Your task to perform on an android device: find photos in the google photos app Image 0: 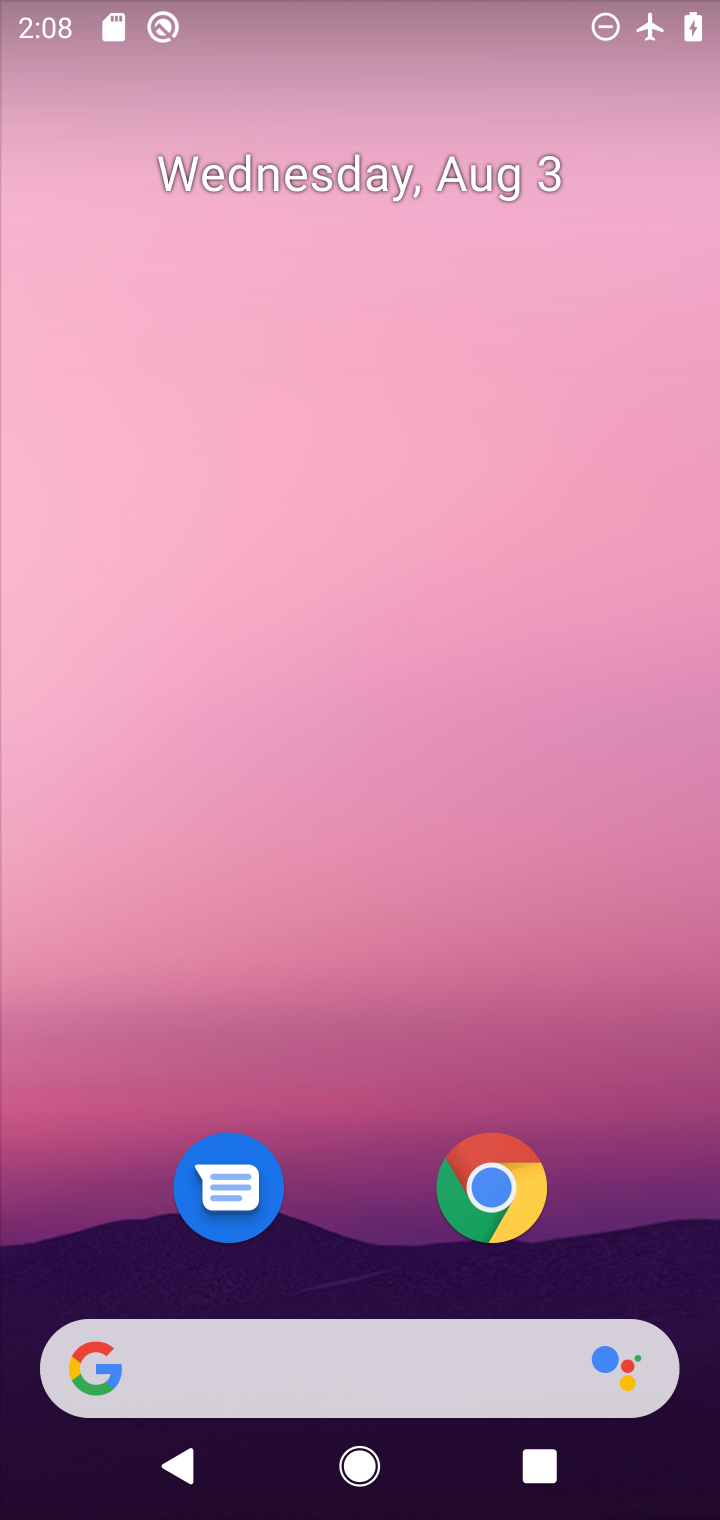
Step 0: drag from (512, 713) to (542, 75)
Your task to perform on an android device: find photos in the google photos app Image 1: 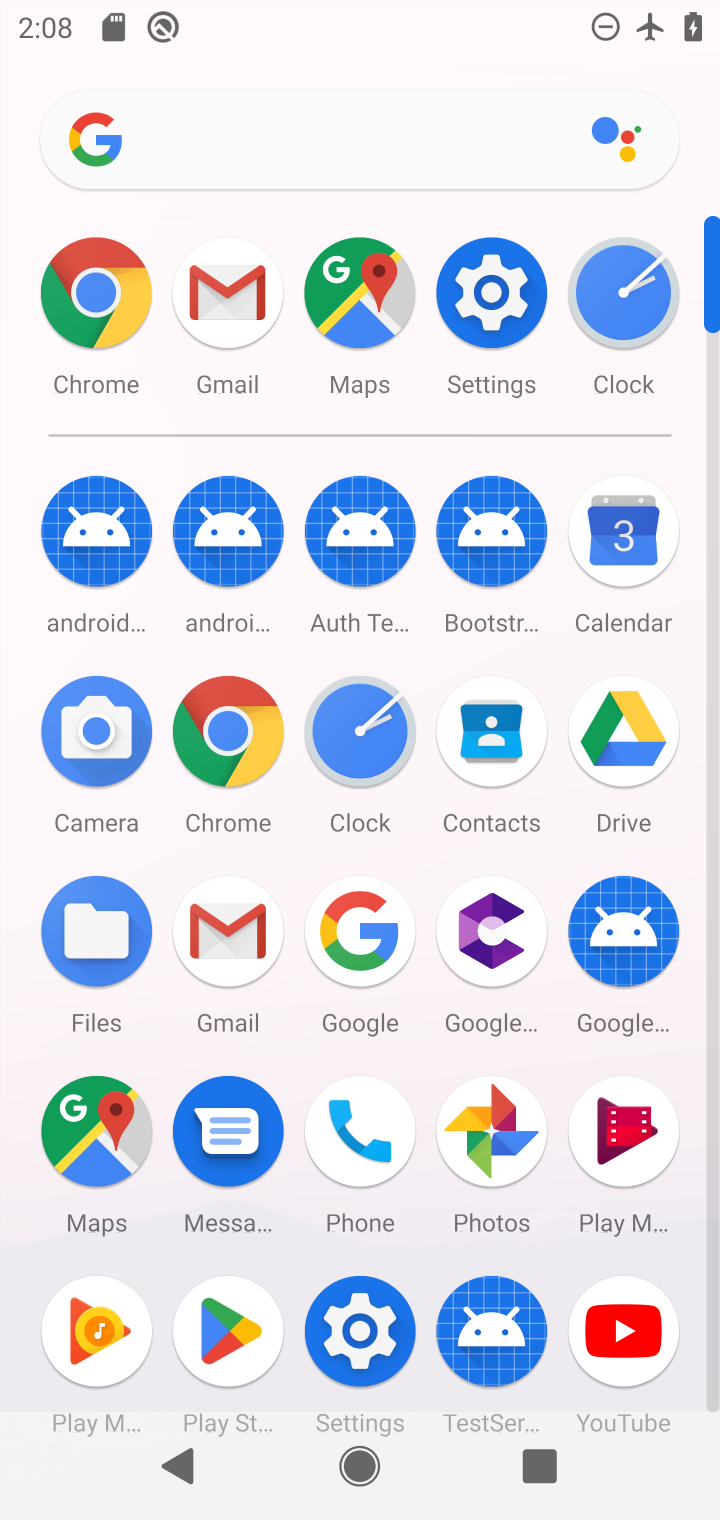
Step 1: click (478, 1143)
Your task to perform on an android device: find photos in the google photos app Image 2: 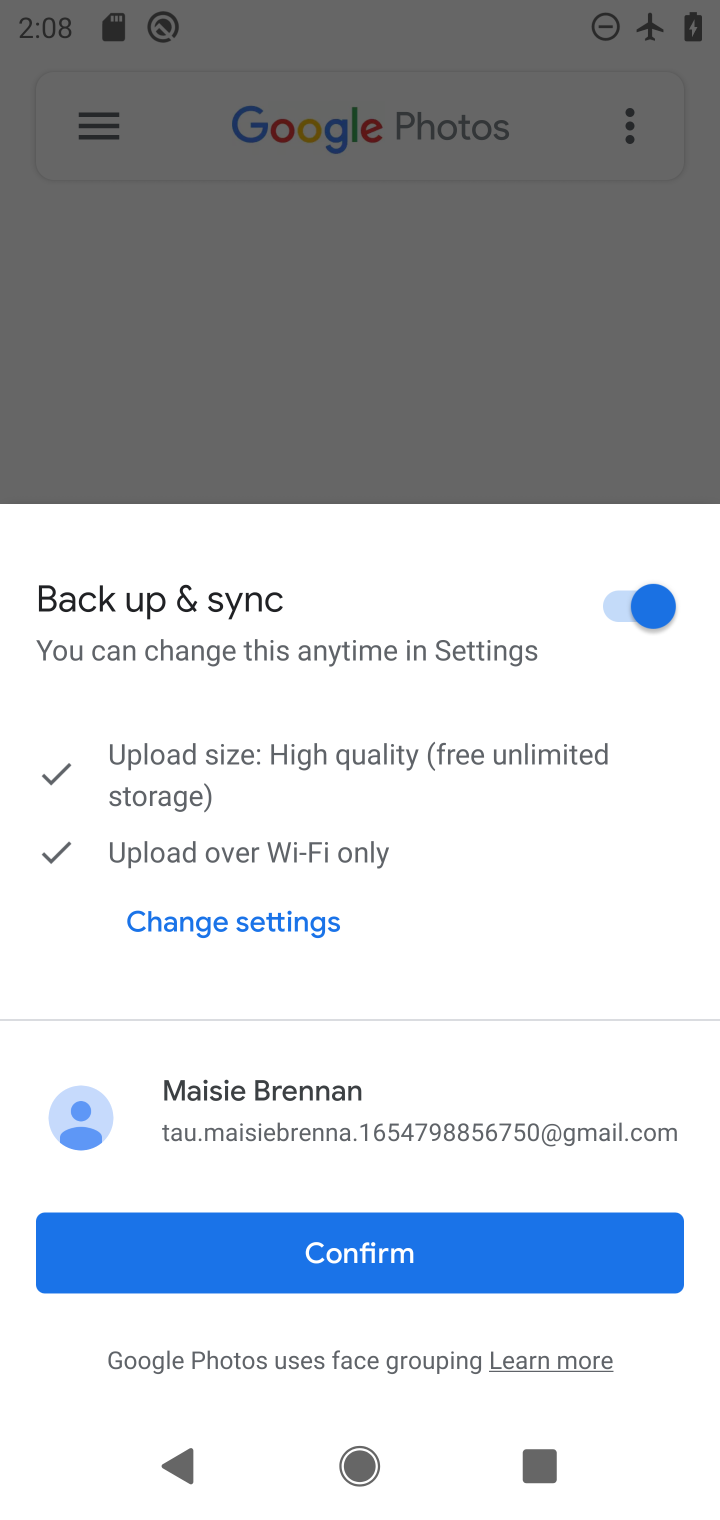
Step 2: click (543, 1250)
Your task to perform on an android device: find photos in the google photos app Image 3: 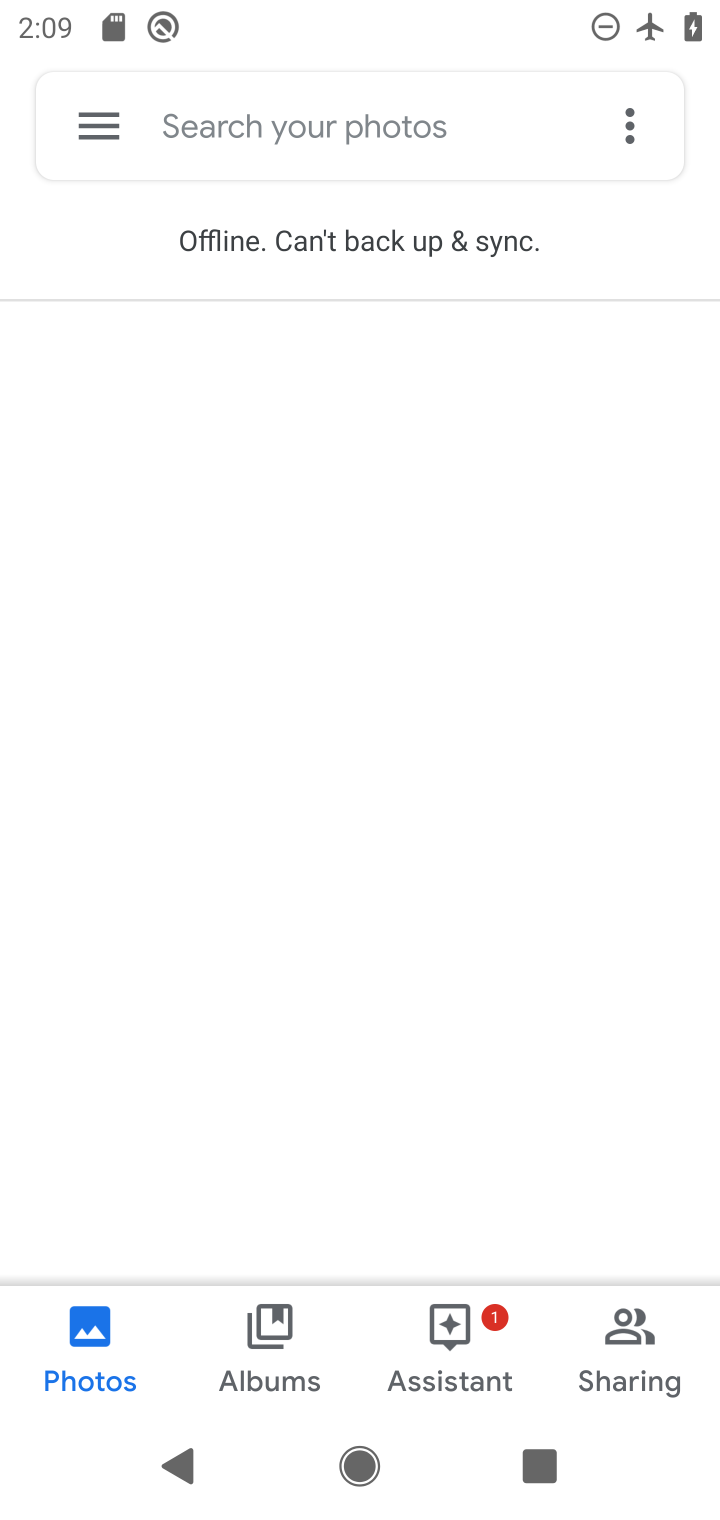
Step 3: task complete